Your task to perform on an android device: find which apps use the phone's location Image 0: 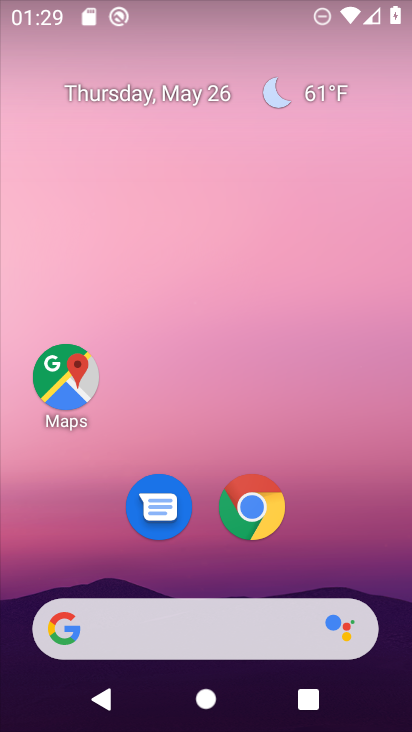
Step 0: drag from (361, 553) to (334, 3)
Your task to perform on an android device: find which apps use the phone's location Image 1: 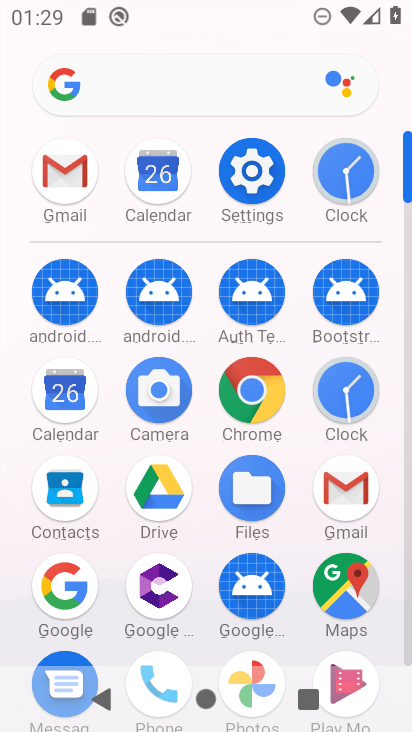
Step 1: click (249, 153)
Your task to perform on an android device: find which apps use the phone's location Image 2: 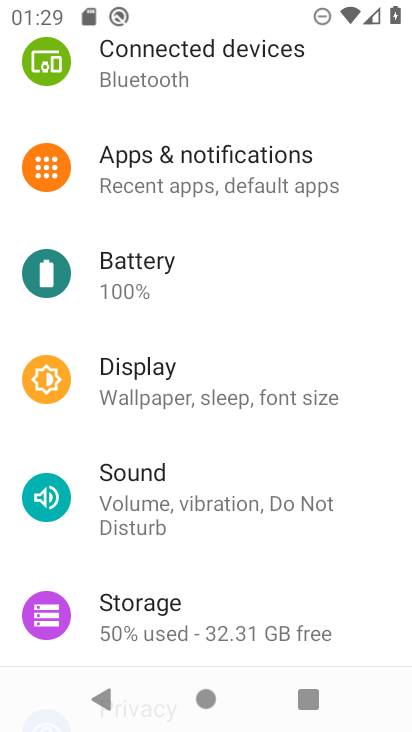
Step 2: drag from (147, 520) to (168, 217)
Your task to perform on an android device: find which apps use the phone's location Image 3: 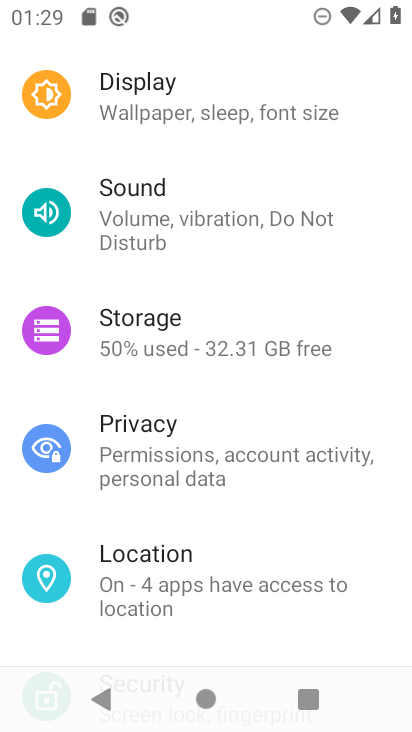
Step 3: click (136, 589)
Your task to perform on an android device: find which apps use the phone's location Image 4: 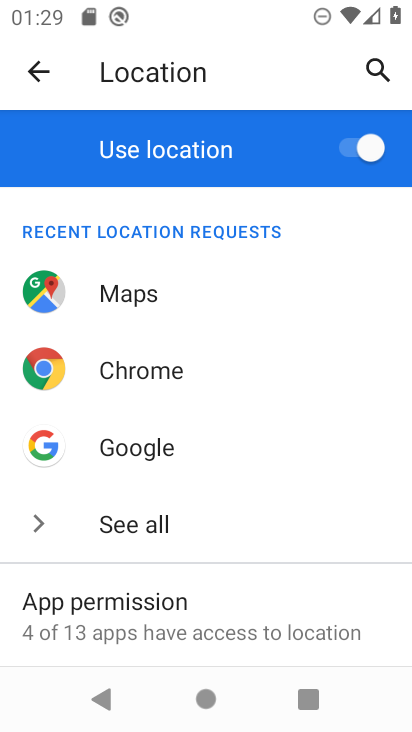
Step 4: task complete